Your task to perform on an android device: turn on wifi Image 0: 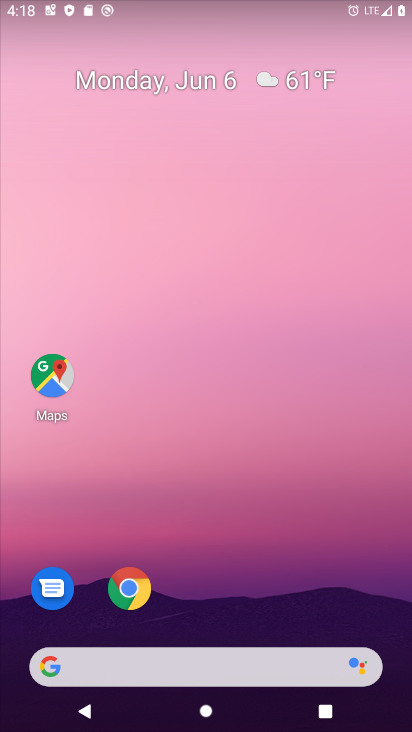
Step 0: drag from (239, 619) to (187, 109)
Your task to perform on an android device: turn on wifi Image 1: 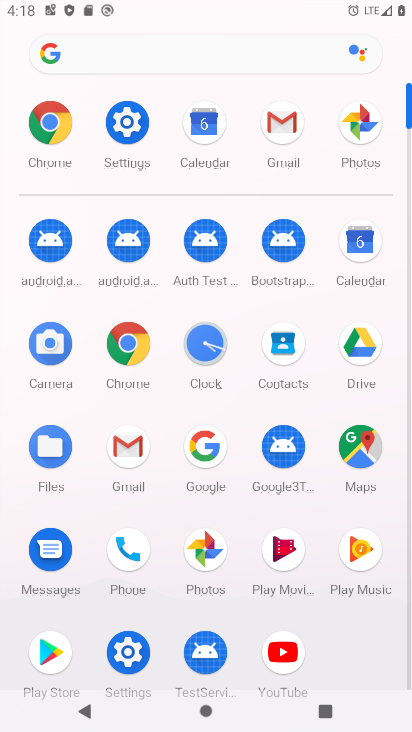
Step 1: click (121, 150)
Your task to perform on an android device: turn on wifi Image 2: 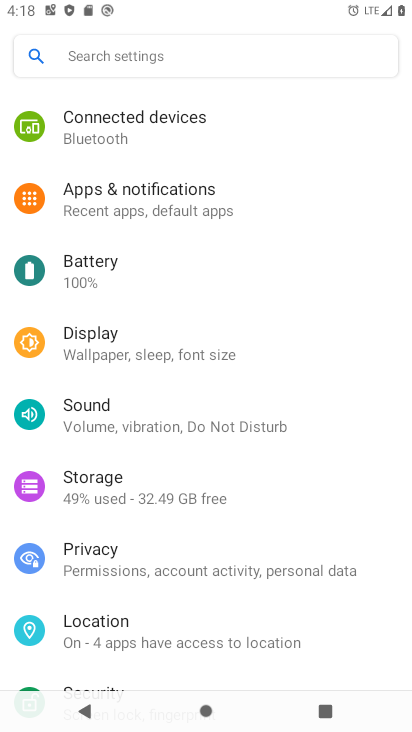
Step 2: drag from (197, 326) to (204, 517)
Your task to perform on an android device: turn on wifi Image 3: 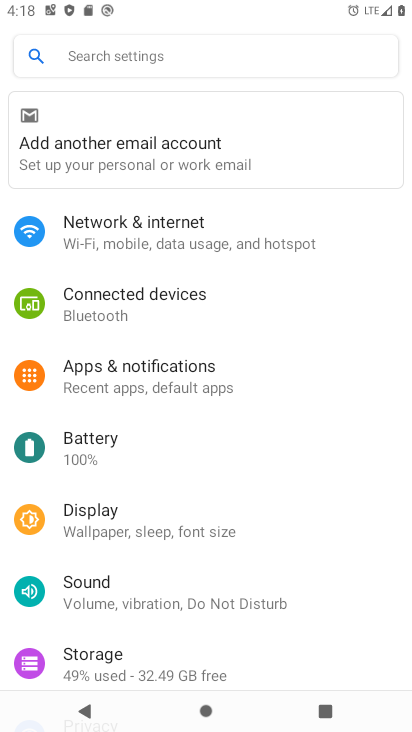
Step 3: click (219, 253)
Your task to perform on an android device: turn on wifi Image 4: 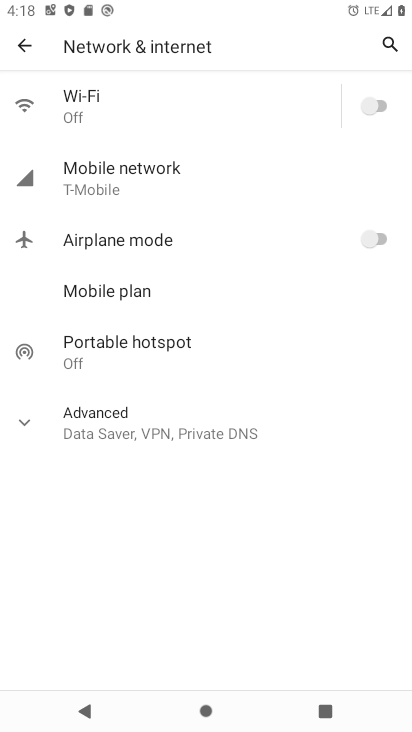
Step 4: click (384, 111)
Your task to perform on an android device: turn on wifi Image 5: 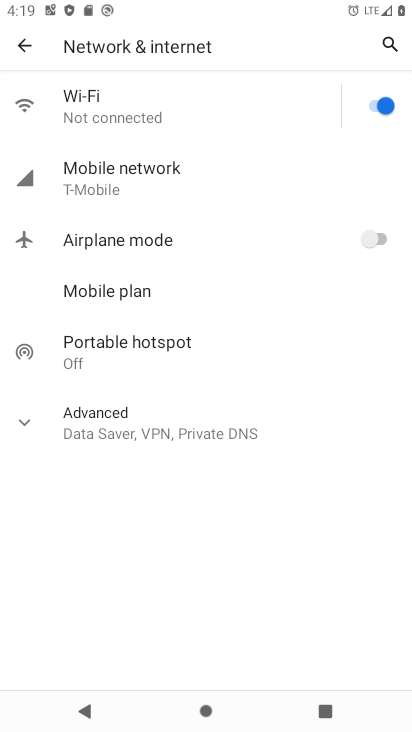
Step 5: task complete